Your task to perform on an android device: open app "HBO Max: Stream TV & Movies" Image 0: 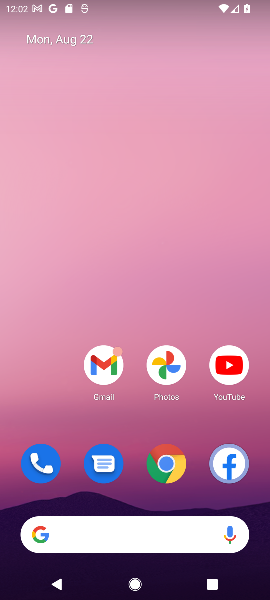
Step 0: drag from (118, 508) to (109, 48)
Your task to perform on an android device: open app "HBO Max: Stream TV & Movies" Image 1: 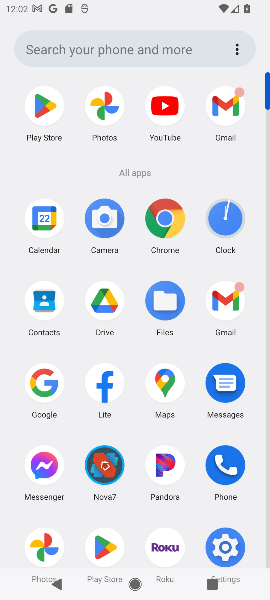
Step 1: click (36, 105)
Your task to perform on an android device: open app "HBO Max: Stream TV & Movies" Image 2: 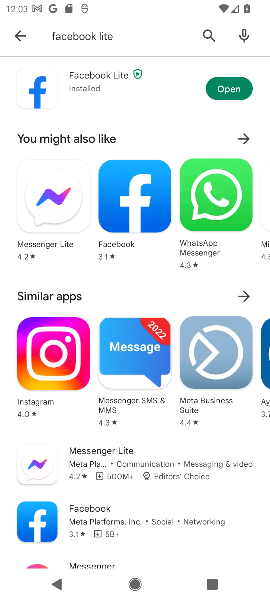
Step 2: click (209, 36)
Your task to perform on an android device: open app "HBO Max: Stream TV & Movies" Image 3: 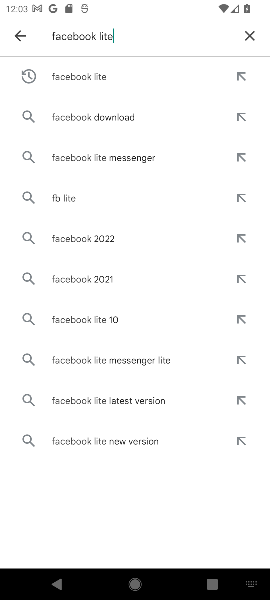
Step 3: click (251, 37)
Your task to perform on an android device: open app "HBO Max: Stream TV & Movies" Image 4: 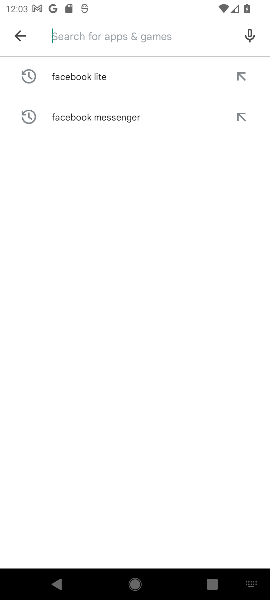
Step 4: type "HBO Max: Stream TV & Movies"
Your task to perform on an android device: open app "HBO Max: Stream TV & Movies" Image 5: 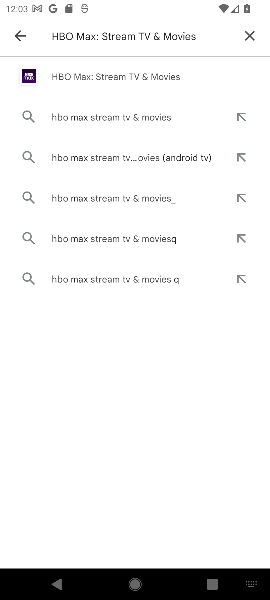
Step 5: click (77, 75)
Your task to perform on an android device: open app "HBO Max: Stream TV & Movies" Image 6: 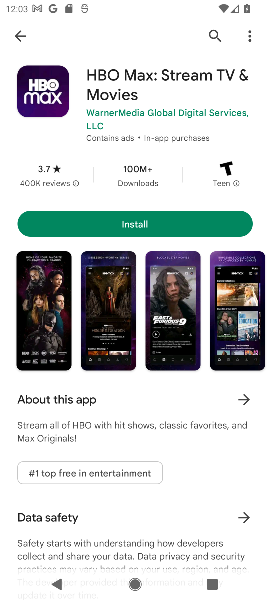
Step 6: click (122, 224)
Your task to perform on an android device: open app "HBO Max: Stream TV & Movies" Image 7: 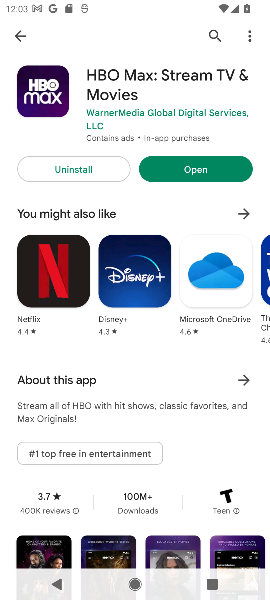
Step 7: click (214, 178)
Your task to perform on an android device: open app "HBO Max: Stream TV & Movies" Image 8: 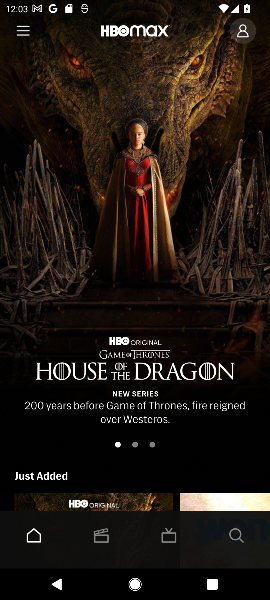
Step 8: task complete